Your task to perform on an android device: Open Reddit.com Image 0: 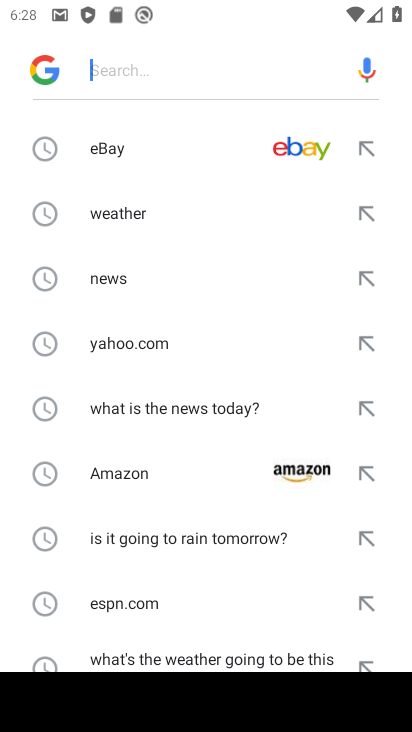
Step 0: press home button
Your task to perform on an android device: Open Reddit.com Image 1: 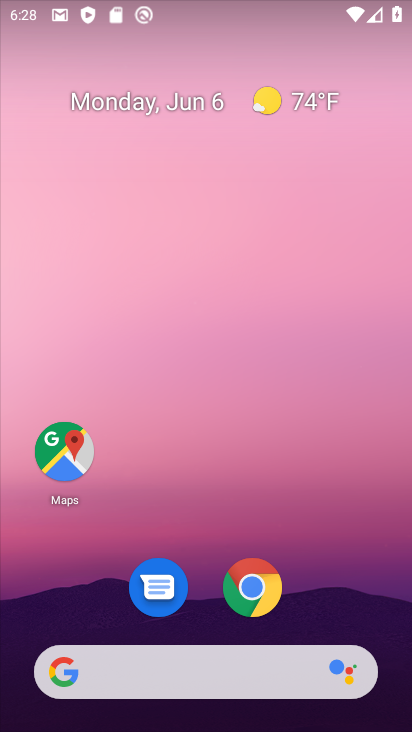
Step 1: drag from (380, 639) to (301, 14)
Your task to perform on an android device: Open Reddit.com Image 2: 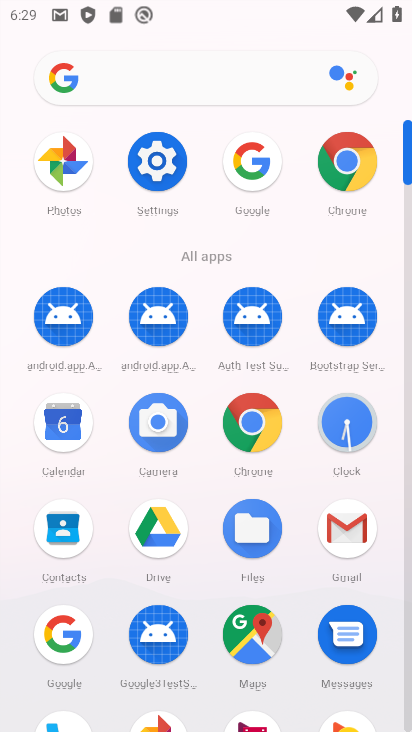
Step 2: click (48, 646)
Your task to perform on an android device: Open Reddit.com Image 3: 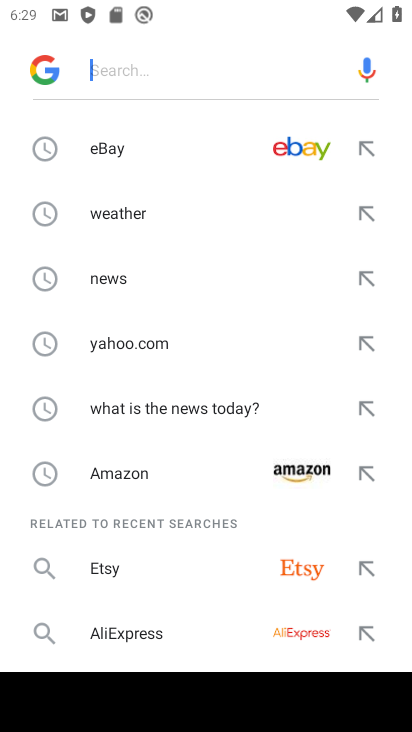
Step 3: type "reddit.com"
Your task to perform on an android device: Open Reddit.com Image 4: 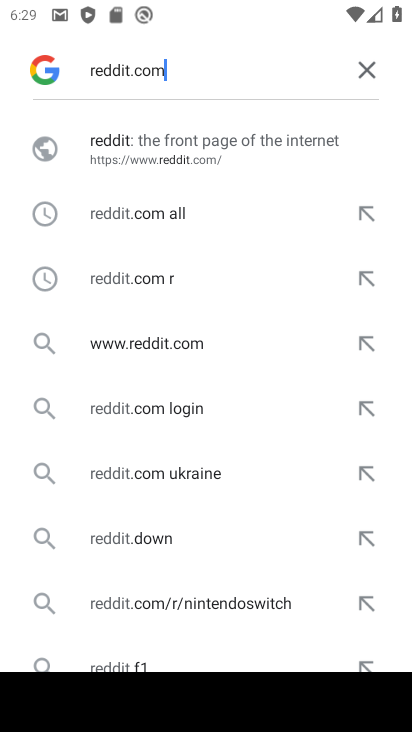
Step 4: click (126, 134)
Your task to perform on an android device: Open Reddit.com Image 5: 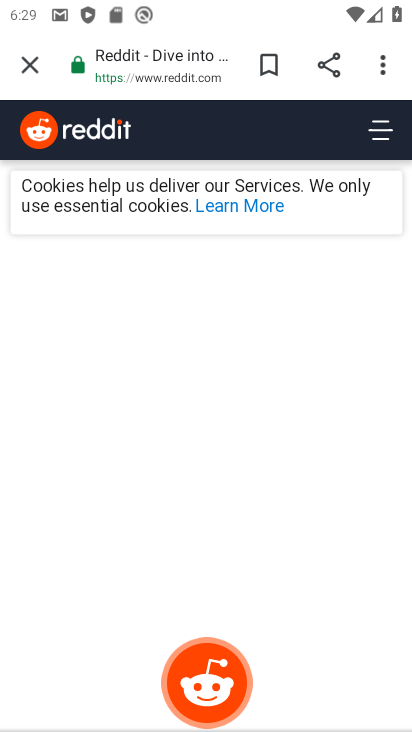
Step 5: task complete